Your task to perform on an android device: Open the stopwatch Image 0: 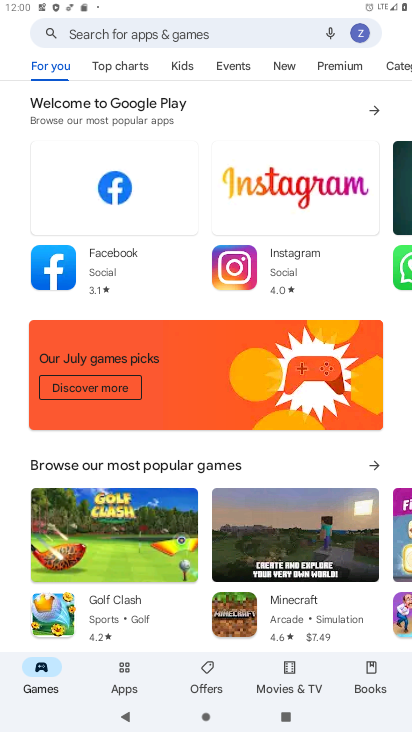
Step 0: press home button
Your task to perform on an android device: Open the stopwatch Image 1: 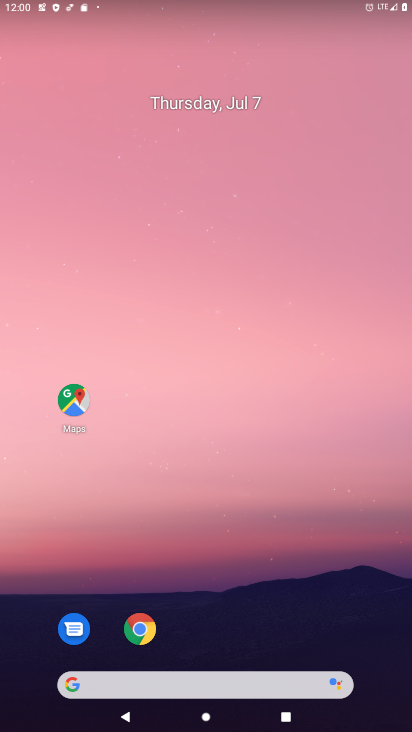
Step 1: drag from (238, 599) to (191, 277)
Your task to perform on an android device: Open the stopwatch Image 2: 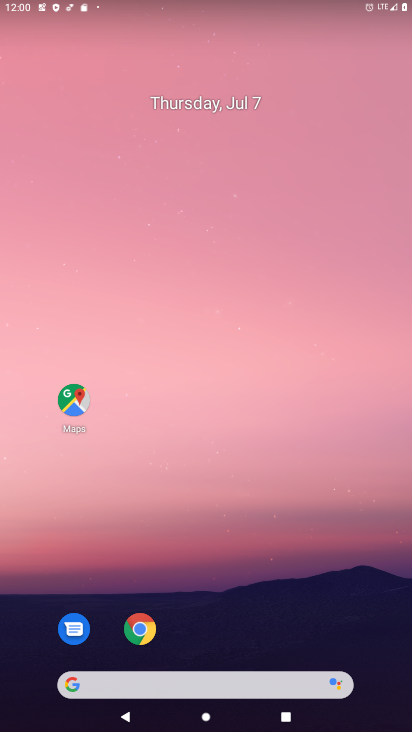
Step 2: drag from (210, 582) to (186, 139)
Your task to perform on an android device: Open the stopwatch Image 3: 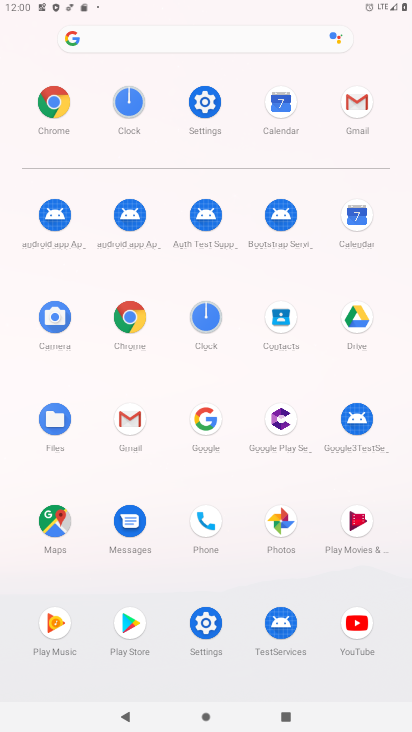
Step 3: click (206, 316)
Your task to perform on an android device: Open the stopwatch Image 4: 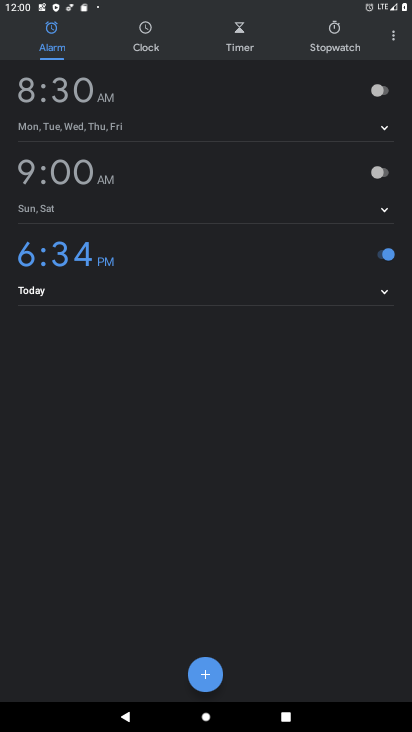
Step 4: click (337, 32)
Your task to perform on an android device: Open the stopwatch Image 5: 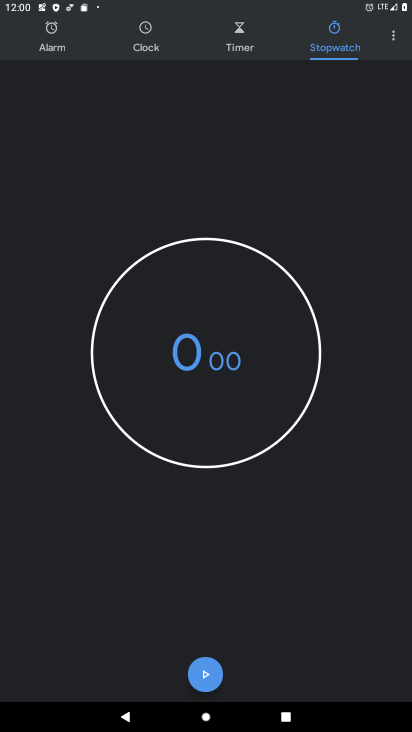
Step 5: task complete